Your task to perform on an android device: see tabs open on other devices in the chrome app Image 0: 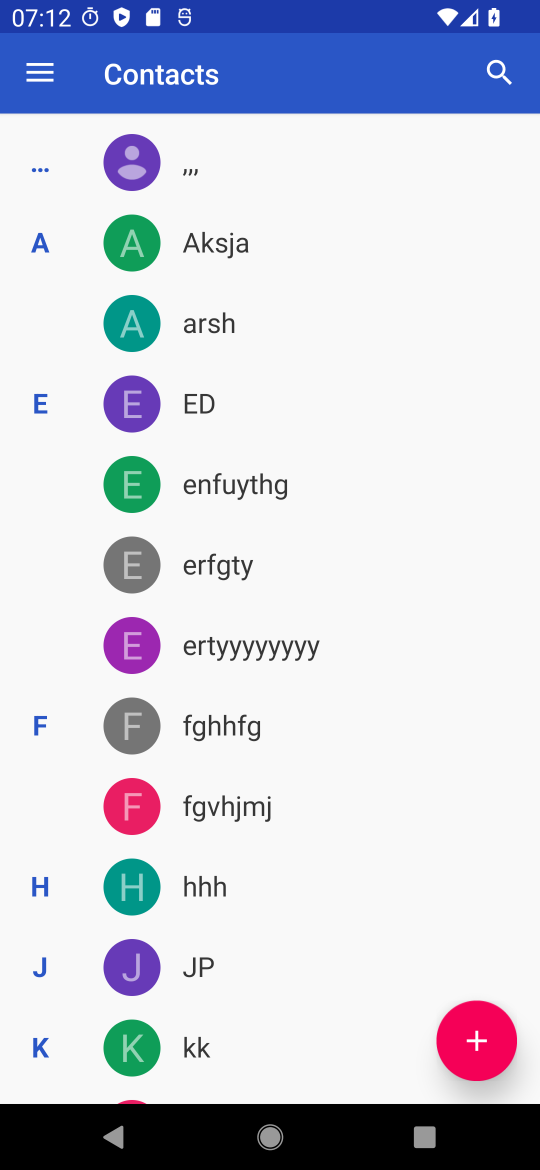
Step 0: press home button
Your task to perform on an android device: see tabs open on other devices in the chrome app Image 1: 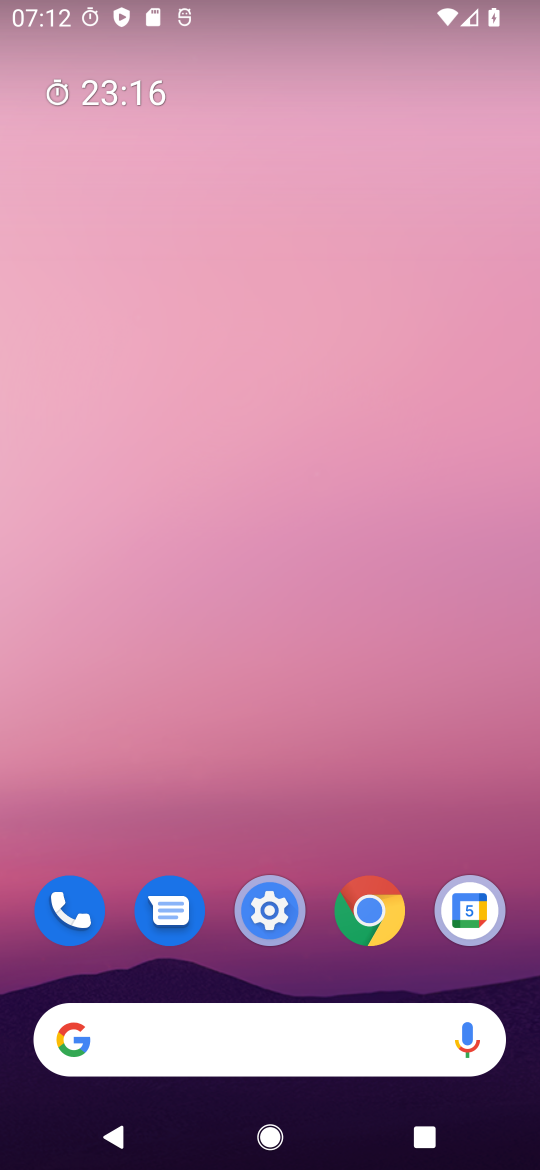
Step 1: click (165, 1034)
Your task to perform on an android device: see tabs open on other devices in the chrome app Image 2: 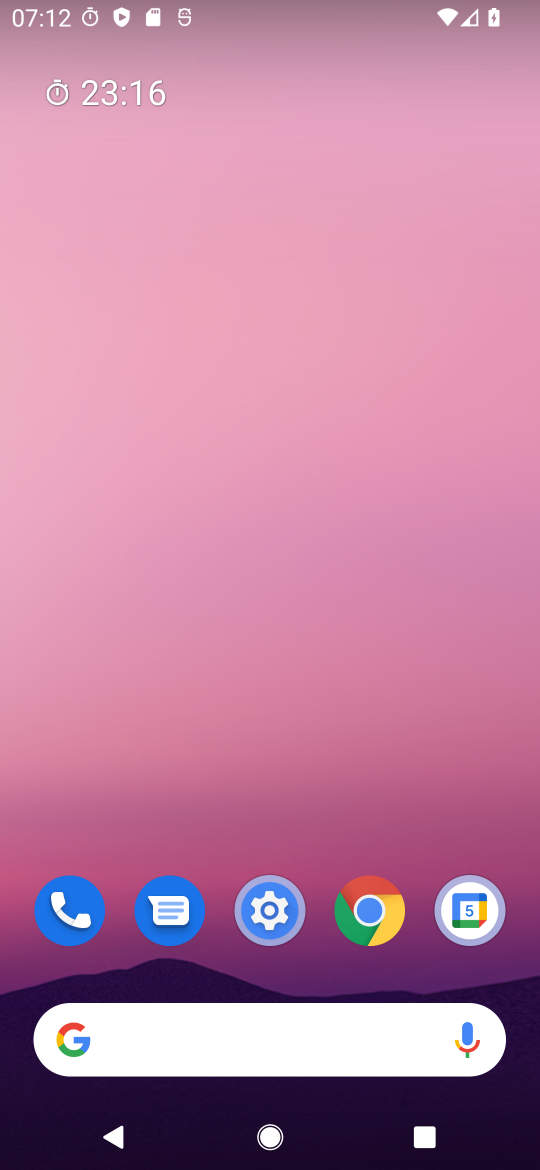
Step 2: drag from (165, 1034) to (322, 80)
Your task to perform on an android device: see tabs open on other devices in the chrome app Image 3: 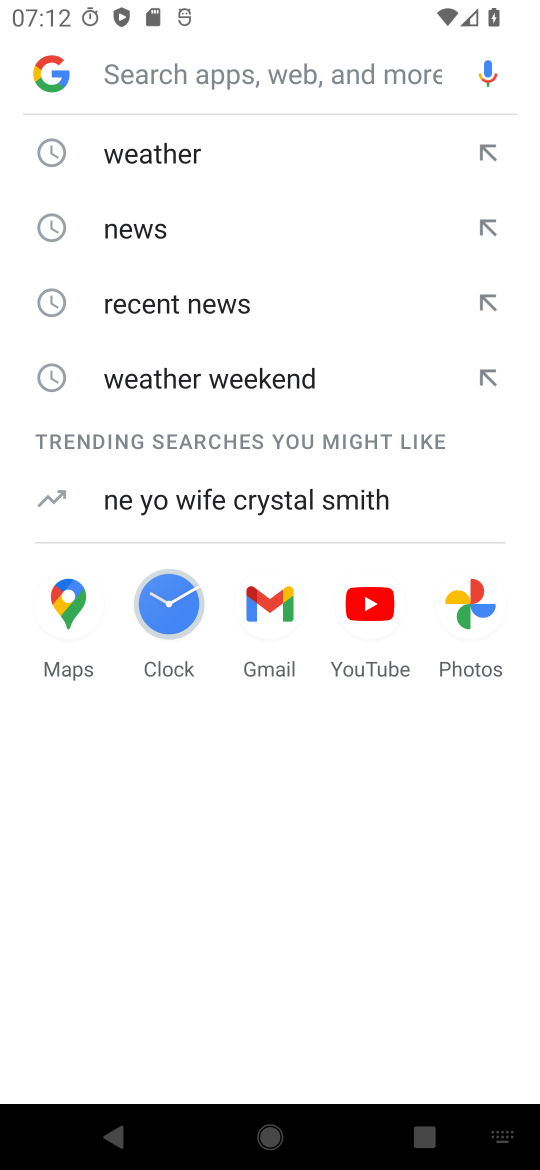
Step 3: press home button
Your task to perform on an android device: see tabs open on other devices in the chrome app Image 4: 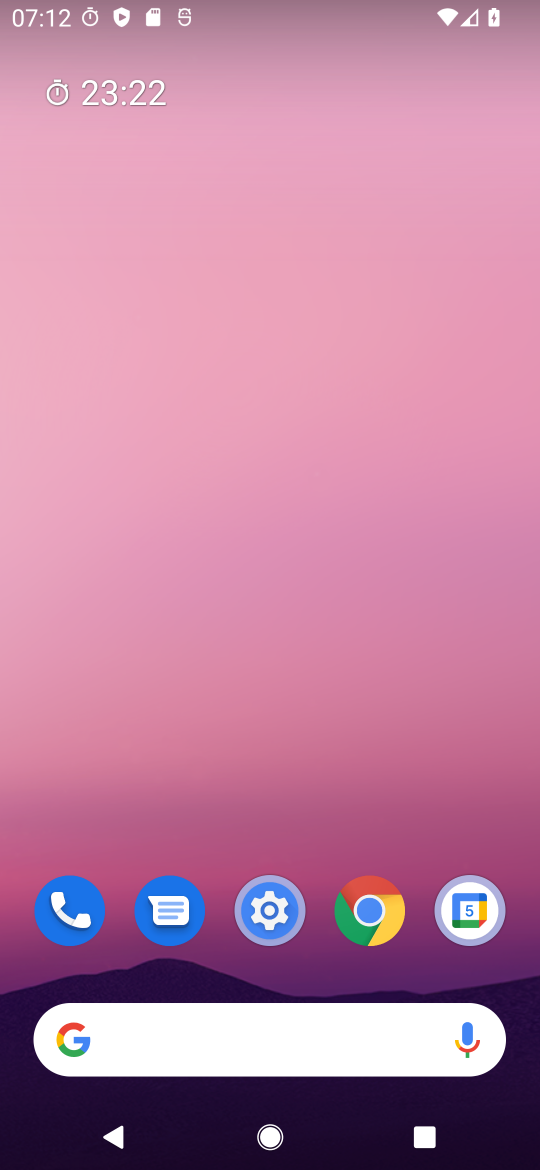
Step 4: drag from (180, 1056) to (348, 74)
Your task to perform on an android device: see tabs open on other devices in the chrome app Image 5: 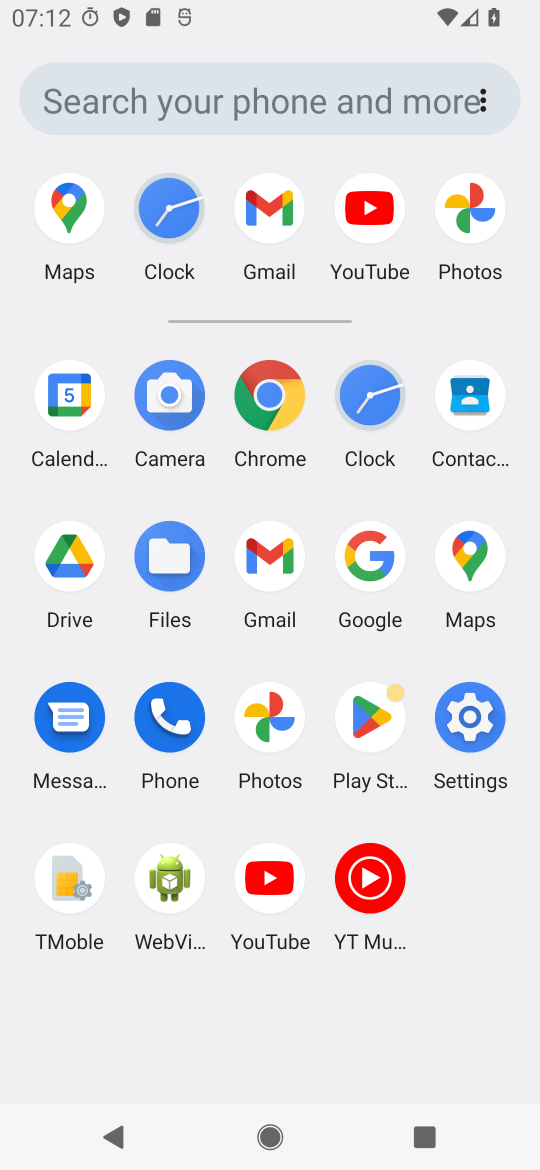
Step 5: click (252, 389)
Your task to perform on an android device: see tabs open on other devices in the chrome app Image 6: 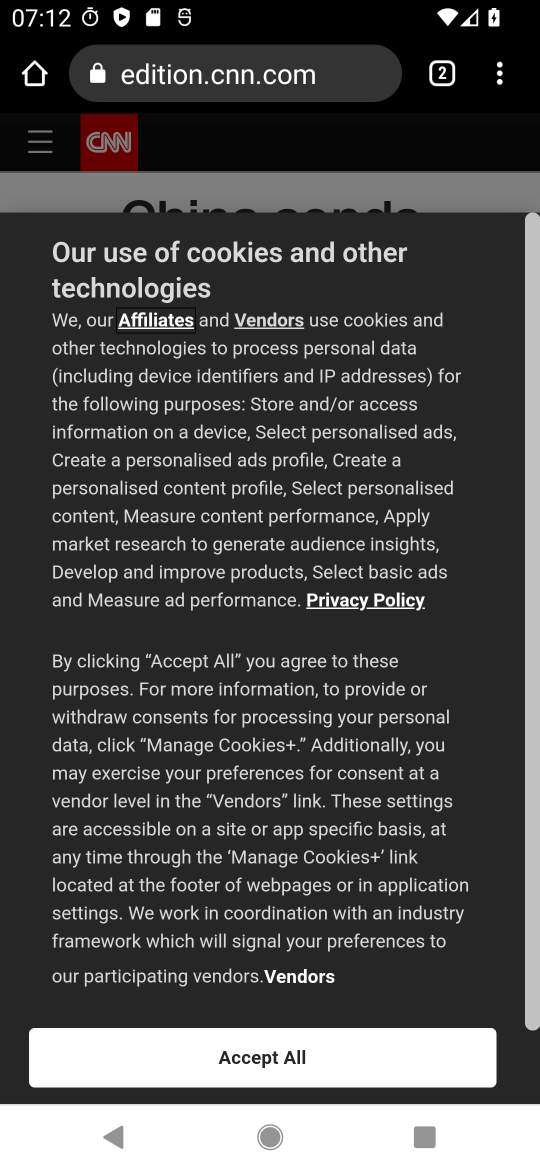
Step 6: click (503, 63)
Your task to perform on an android device: see tabs open on other devices in the chrome app Image 7: 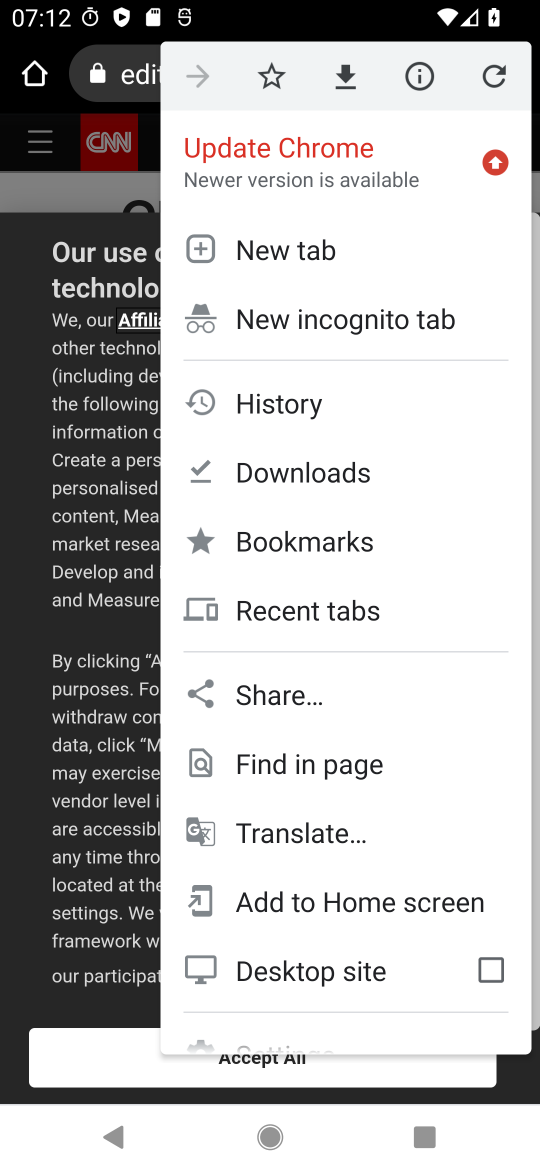
Step 7: click (274, 623)
Your task to perform on an android device: see tabs open on other devices in the chrome app Image 8: 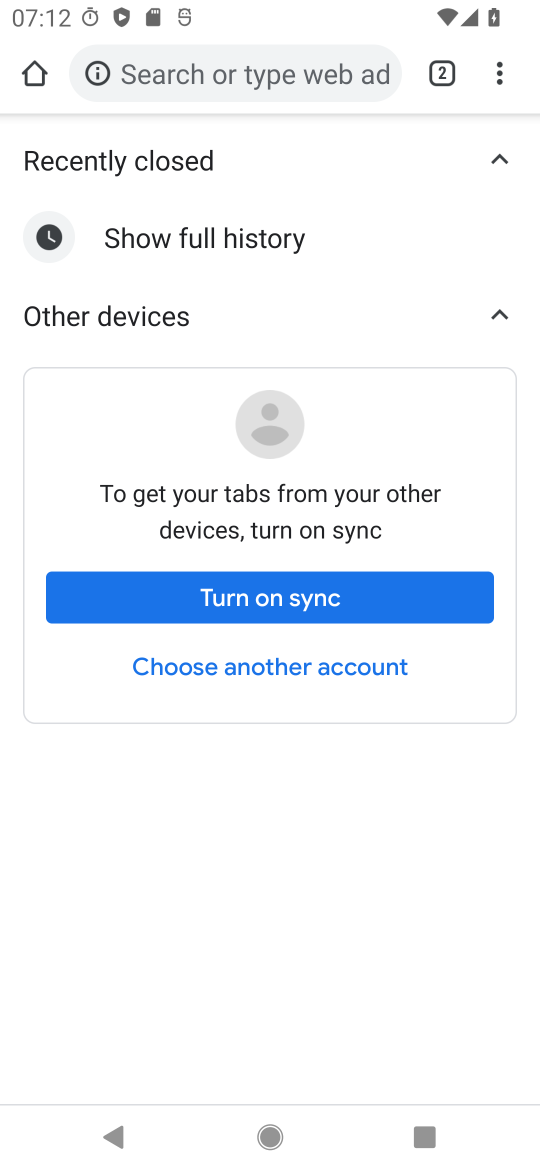
Step 8: task complete